Your task to perform on an android device: Is it going to rain this weekend? Image 0: 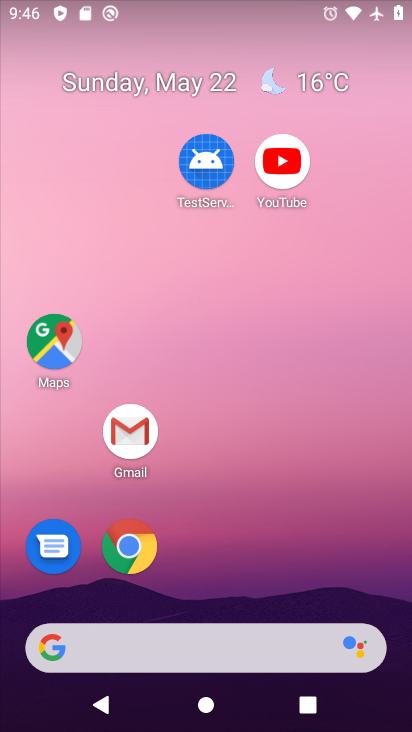
Step 0: drag from (4, 195) to (376, 418)
Your task to perform on an android device: Is it going to rain this weekend? Image 1: 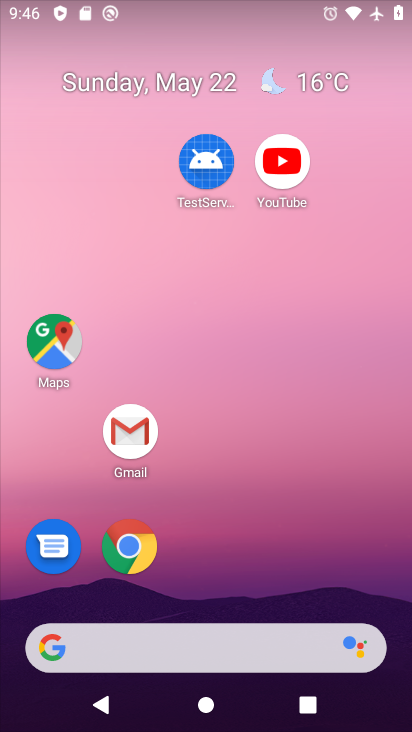
Step 1: drag from (0, 185) to (370, 423)
Your task to perform on an android device: Is it going to rain this weekend? Image 2: 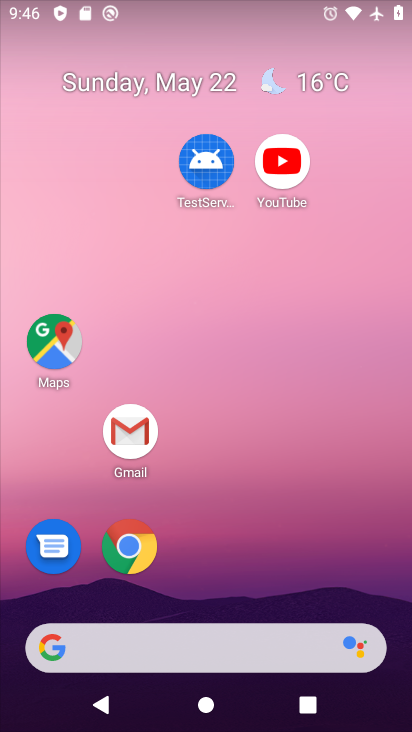
Step 2: drag from (6, 228) to (405, 309)
Your task to perform on an android device: Is it going to rain this weekend? Image 3: 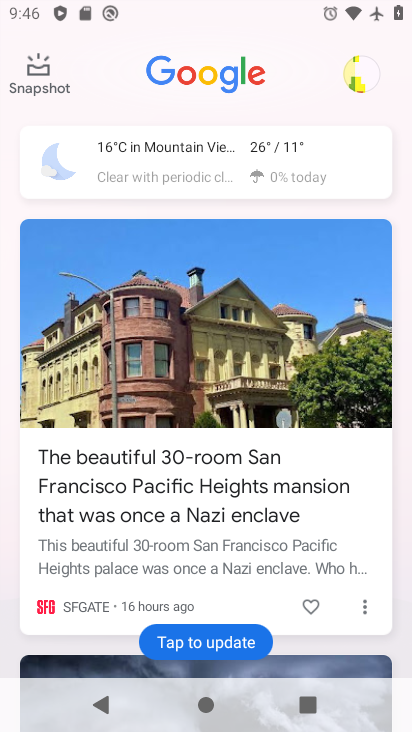
Step 3: drag from (27, 269) to (400, 350)
Your task to perform on an android device: Is it going to rain this weekend? Image 4: 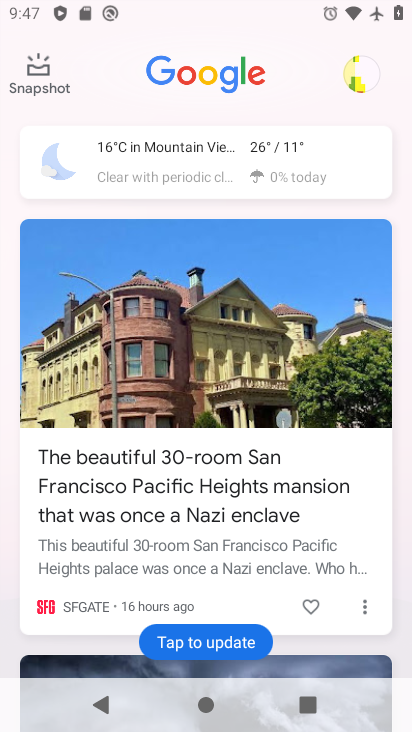
Step 4: click (179, 173)
Your task to perform on an android device: Is it going to rain this weekend? Image 5: 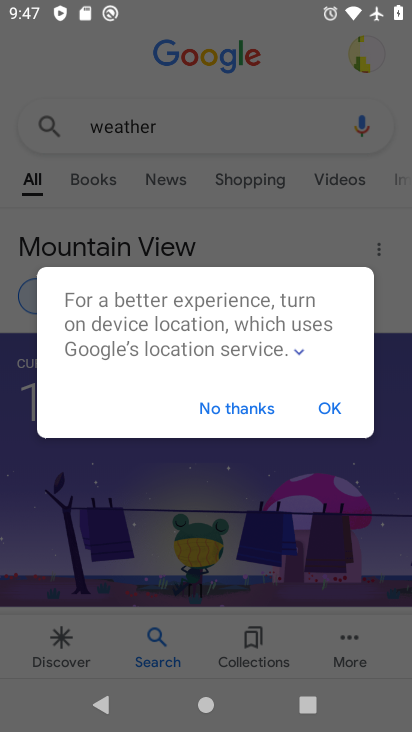
Step 5: click (252, 410)
Your task to perform on an android device: Is it going to rain this weekend? Image 6: 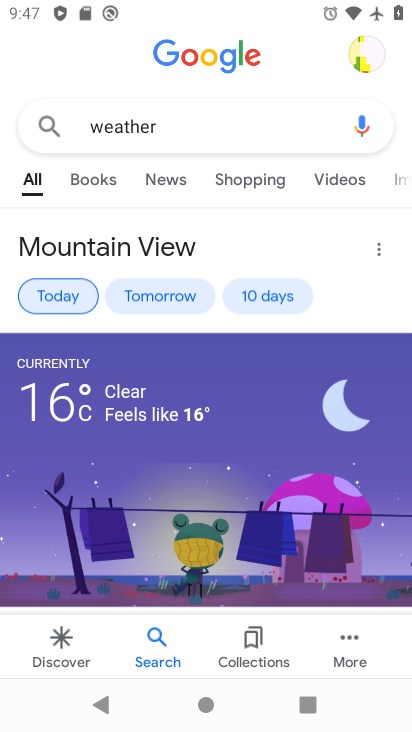
Step 6: task complete